Your task to perform on an android device: turn off wifi Image 0: 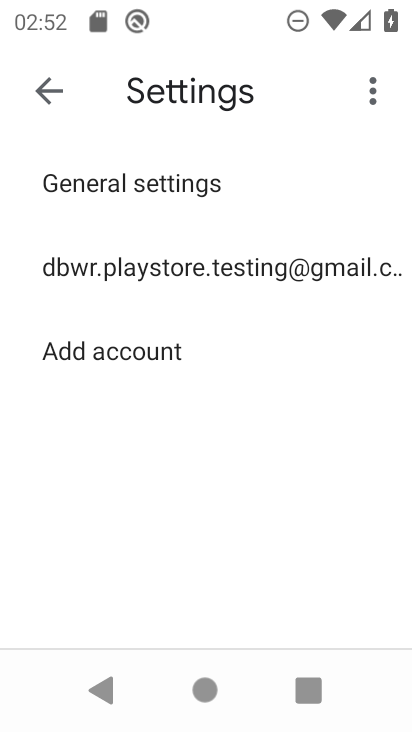
Step 0: press home button
Your task to perform on an android device: turn off wifi Image 1: 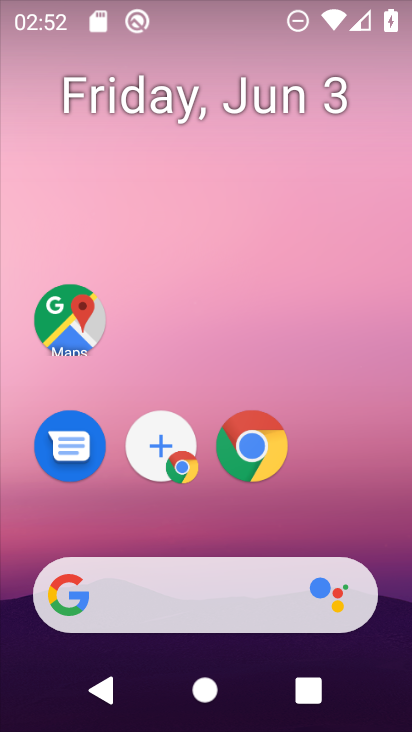
Step 1: drag from (158, 705) to (113, 24)
Your task to perform on an android device: turn off wifi Image 2: 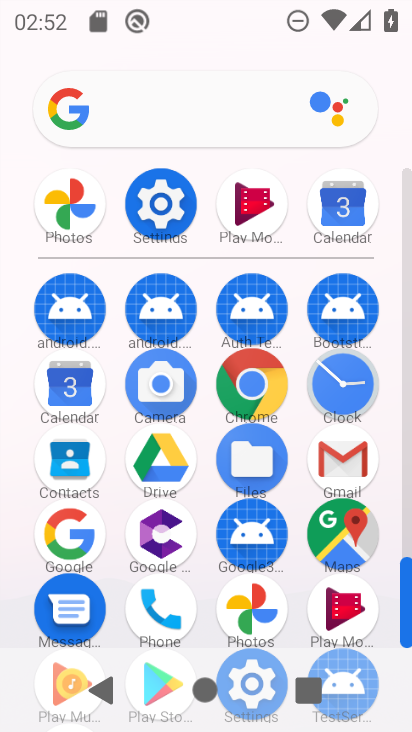
Step 2: click (154, 225)
Your task to perform on an android device: turn off wifi Image 3: 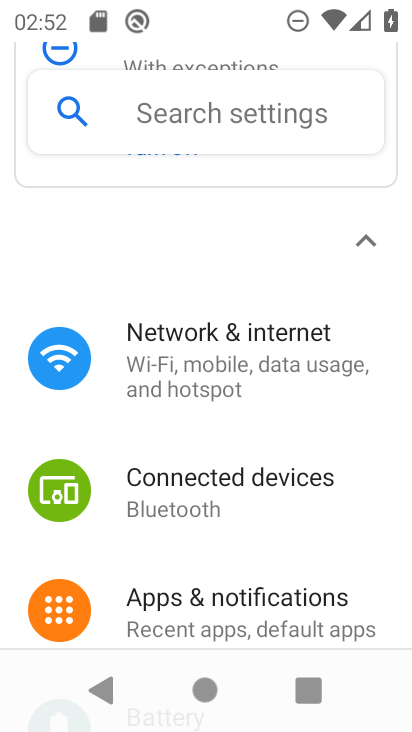
Step 3: click (255, 376)
Your task to perform on an android device: turn off wifi Image 4: 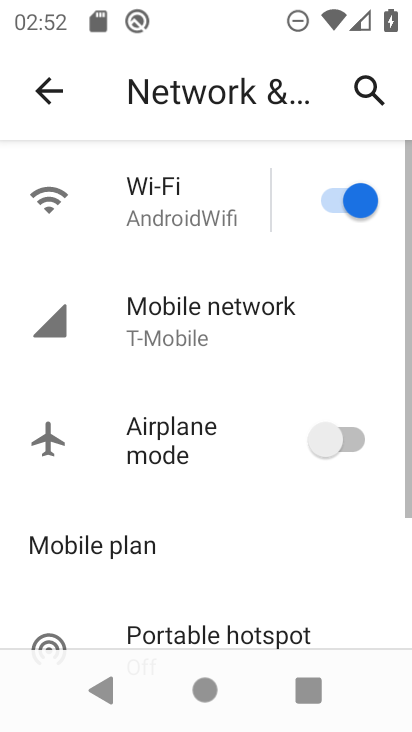
Step 4: click (366, 206)
Your task to perform on an android device: turn off wifi Image 5: 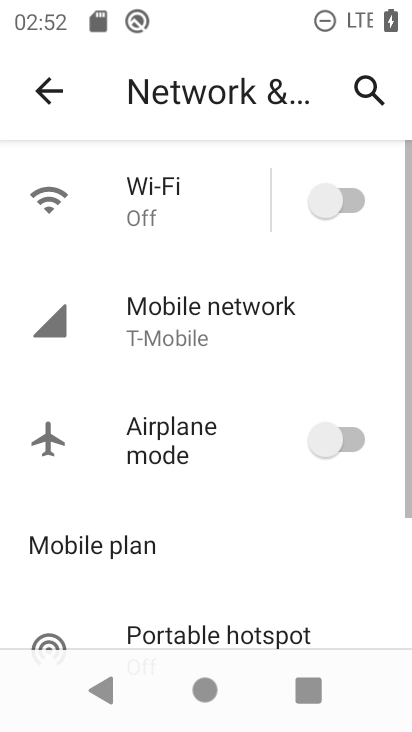
Step 5: task complete